Your task to perform on an android device: toggle airplane mode Image 0: 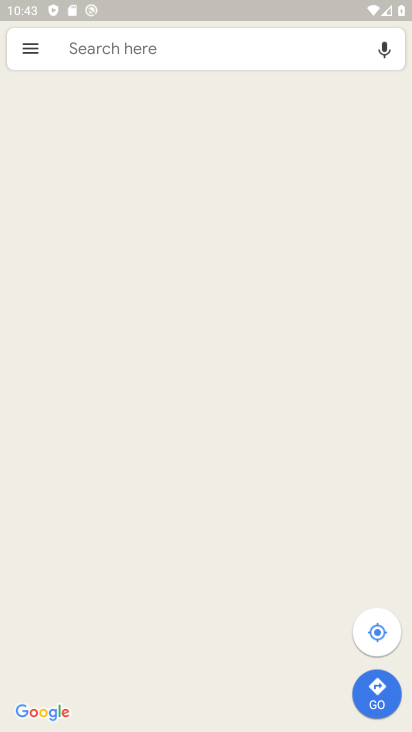
Step 0: press home button
Your task to perform on an android device: toggle airplane mode Image 1: 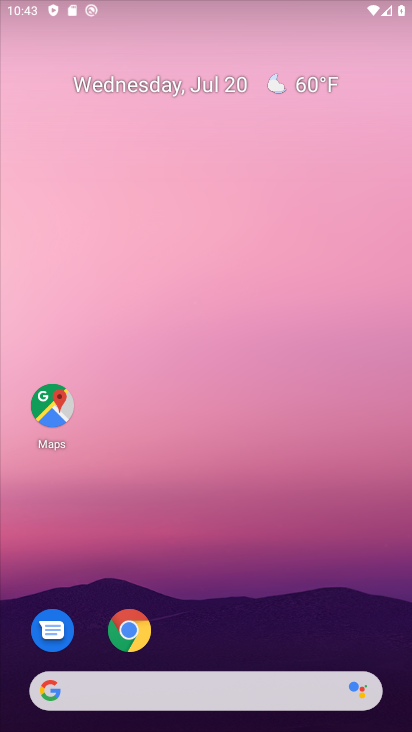
Step 1: drag from (220, 658) to (218, 105)
Your task to perform on an android device: toggle airplane mode Image 2: 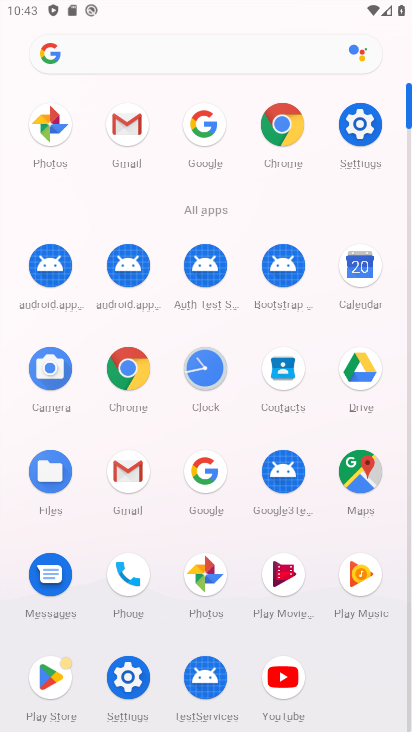
Step 2: click (353, 123)
Your task to perform on an android device: toggle airplane mode Image 3: 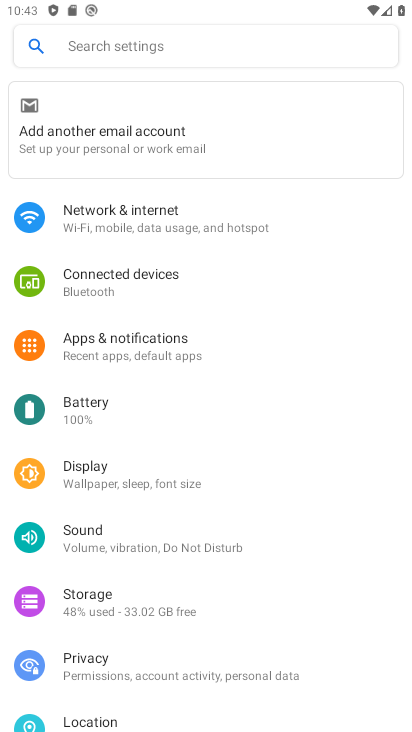
Step 3: click (151, 218)
Your task to perform on an android device: toggle airplane mode Image 4: 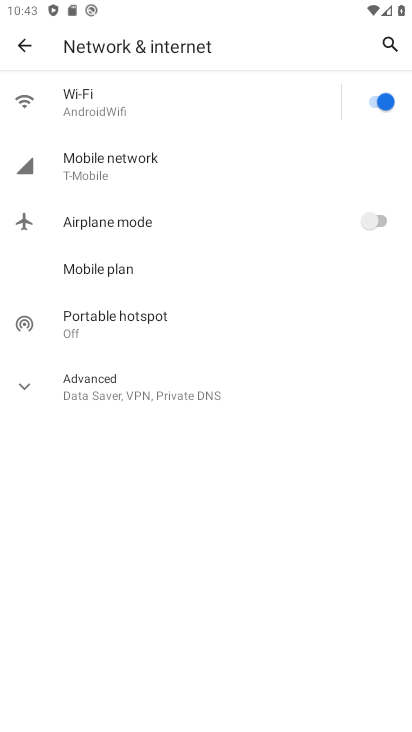
Step 4: click (381, 212)
Your task to perform on an android device: toggle airplane mode Image 5: 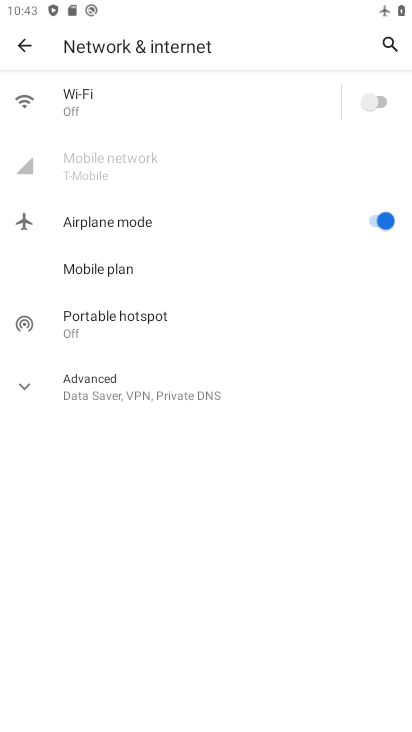
Step 5: task complete